Your task to perform on an android device: turn on sleep mode Image 0: 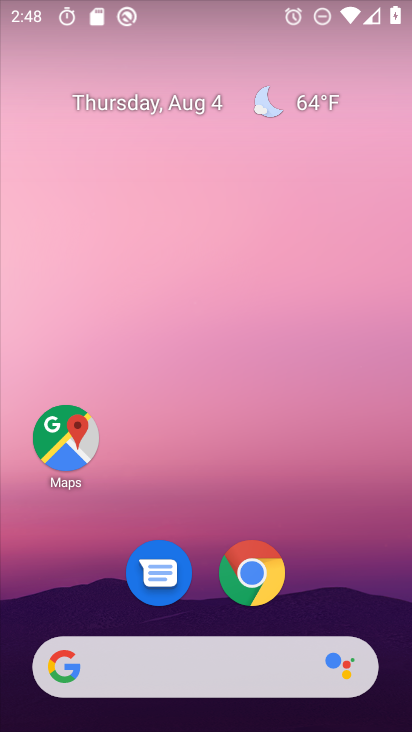
Step 0: drag from (347, 575) to (306, 65)
Your task to perform on an android device: turn on sleep mode Image 1: 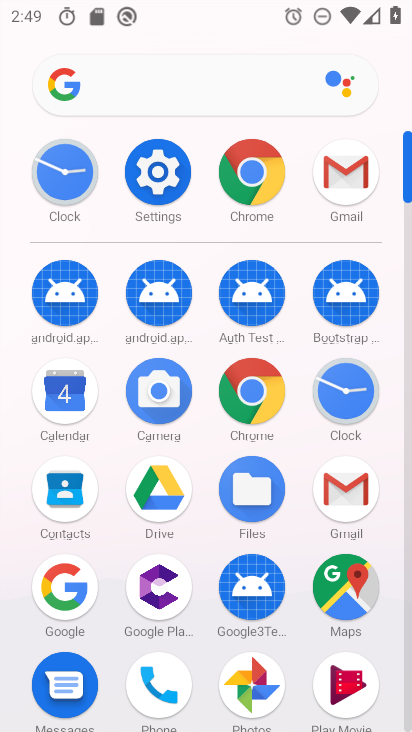
Step 1: click (168, 157)
Your task to perform on an android device: turn on sleep mode Image 2: 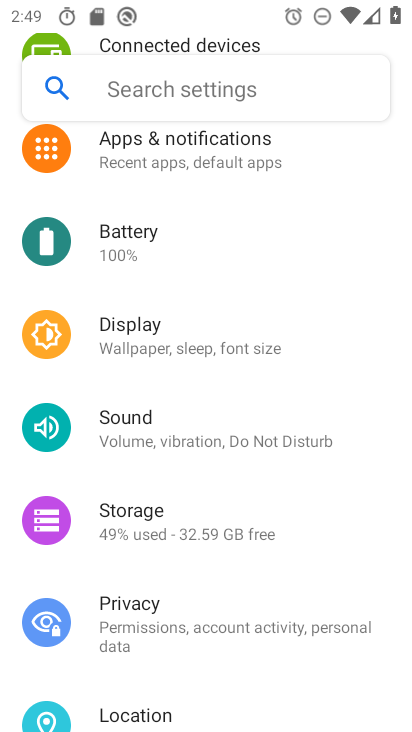
Step 2: click (147, 340)
Your task to perform on an android device: turn on sleep mode Image 3: 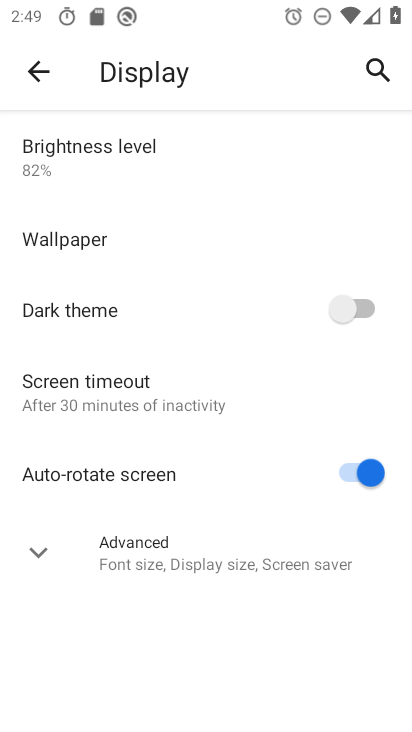
Step 3: click (135, 367)
Your task to perform on an android device: turn on sleep mode Image 4: 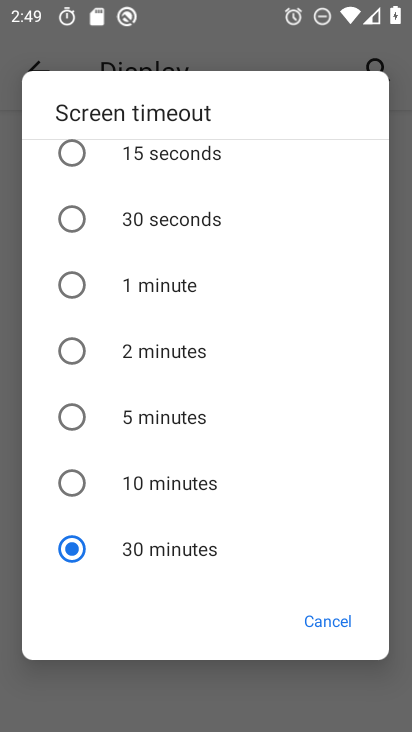
Step 4: task complete